Your task to perform on an android device: Open display settings Image 0: 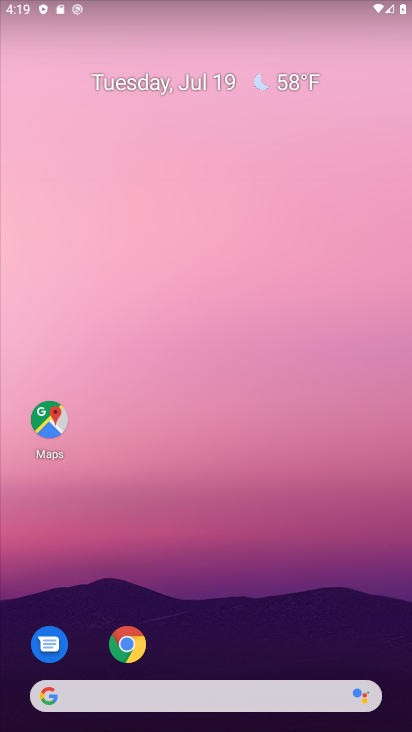
Step 0: drag from (248, 679) to (295, 275)
Your task to perform on an android device: Open display settings Image 1: 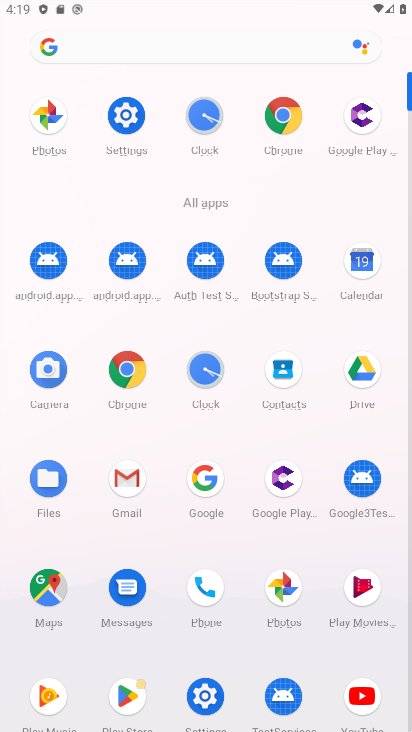
Step 1: click (213, 687)
Your task to perform on an android device: Open display settings Image 2: 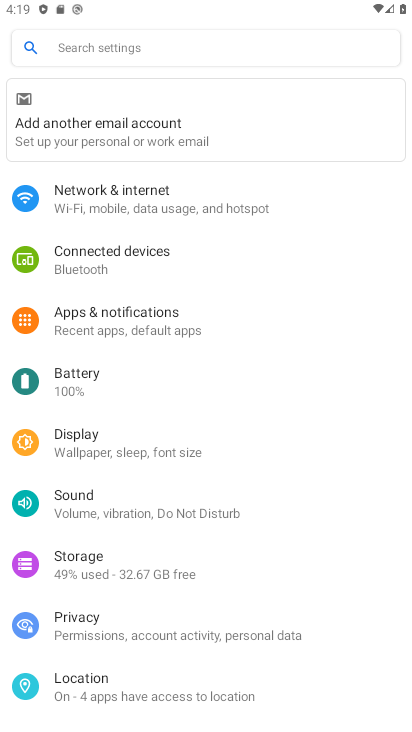
Step 2: click (115, 446)
Your task to perform on an android device: Open display settings Image 3: 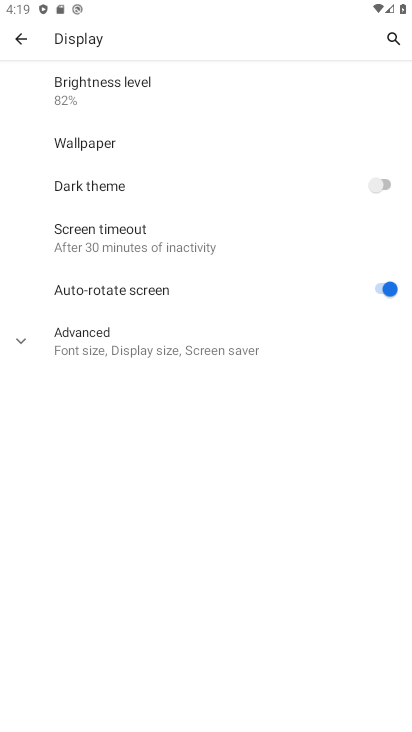
Step 3: task complete